Your task to perform on an android device: What is the recent news? Image 0: 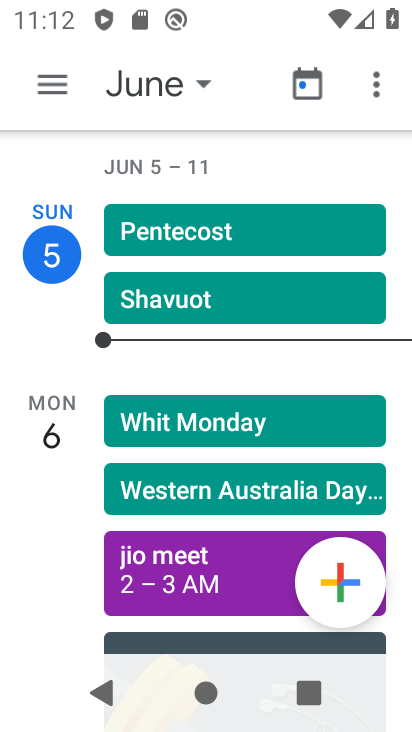
Step 0: drag from (219, 543) to (239, 238)
Your task to perform on an android device: What is the recent news? Image 1: 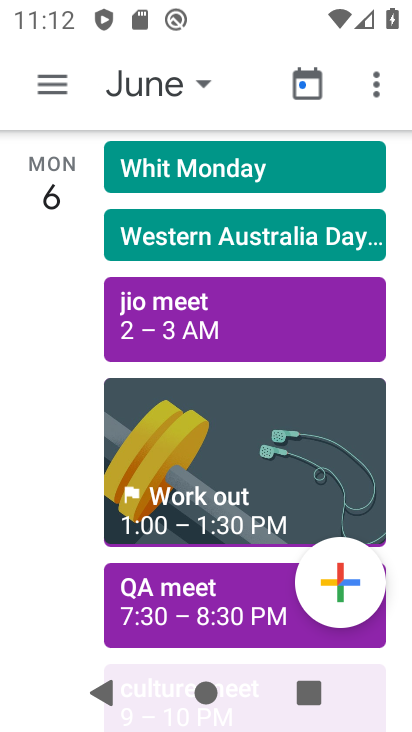
Step 1: press home button
Your task to perform on an android device: What is the recent news? Image 2: 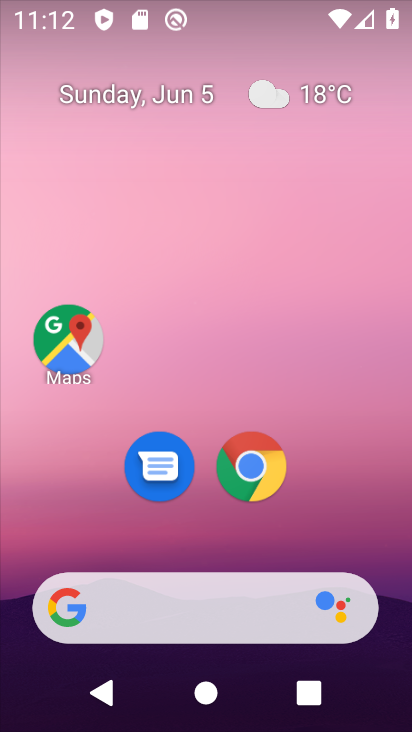
Step 2: drag from (298, 495) to (346, 114)
Your task to perform on an android device: What is the recent news? Image 3: 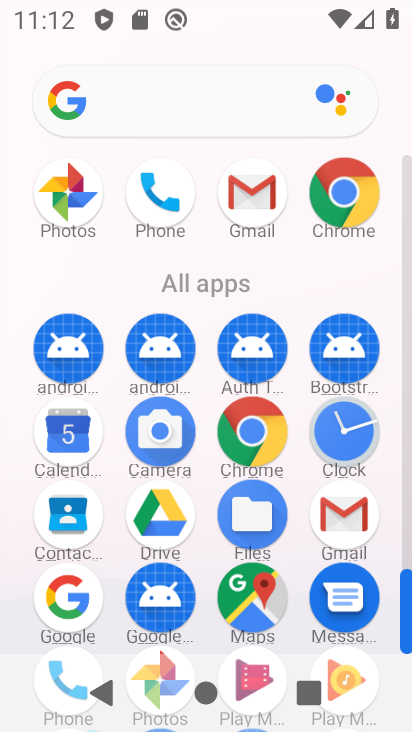
Step 3: click (236, 442)
Your task to perform on an android device: What is the recent news? Image 4: 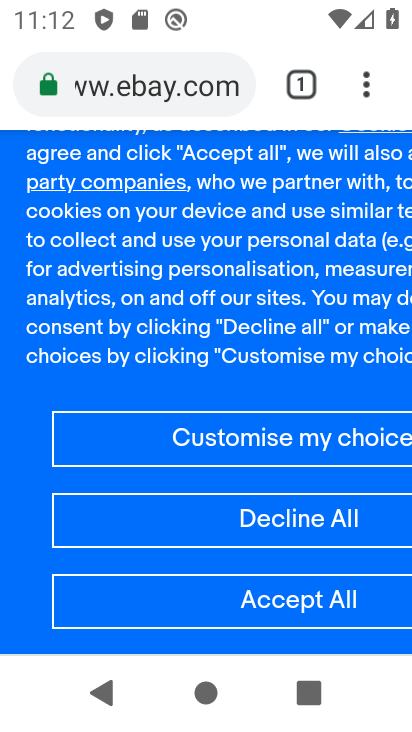
Step 4: click (178, 89)
Your task to perform on an android device: What is the recent news? Image 5: 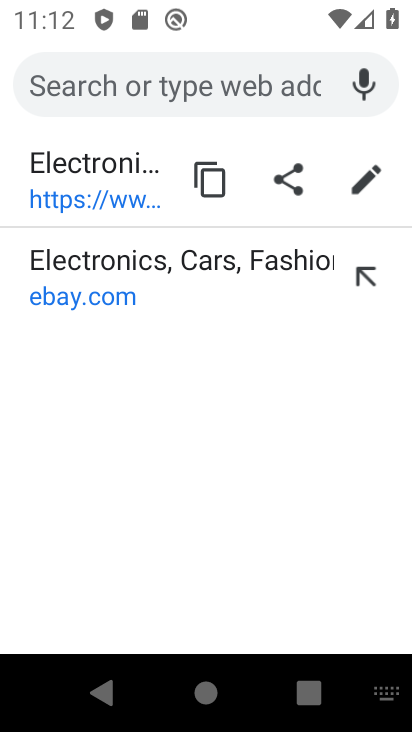
Step 5: type "recent news "
Your task to perform on an android device: What is the recent news? Image 6: 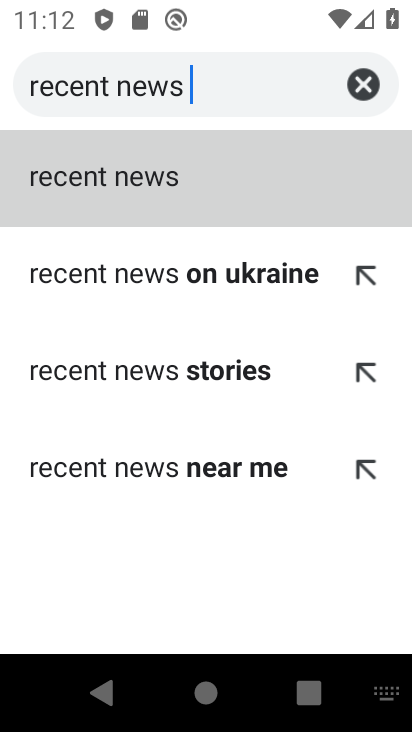
Step 6: click (229, 189)
Your task to perform on an android device: What is the recent news? Image 7: 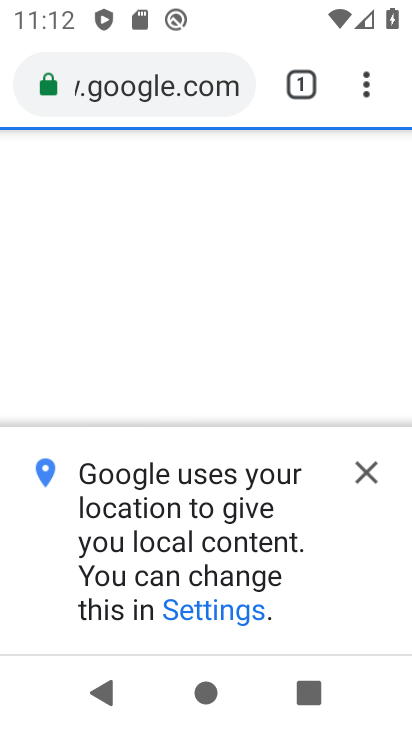
Step 7: click (360, 469)
Your task to perform on an android device: What is the recent news? Image 8: 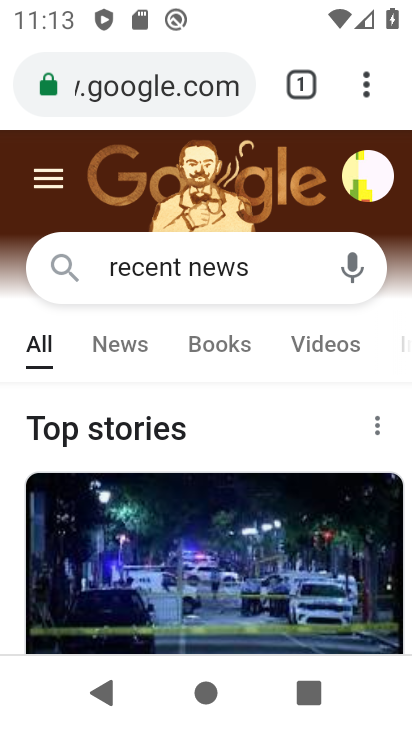
Step 8: task complete